Your task to perform on an android device: Open CNN.com Image 0: 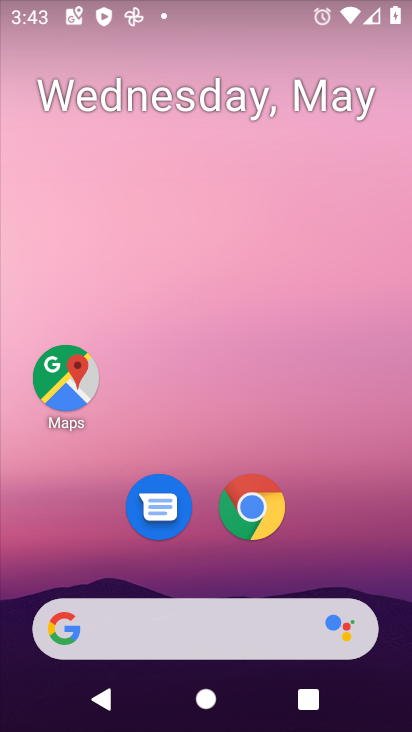
Step 0: click (254, 509)
Your task to perform on an android device: Open CNN.com Image 1: 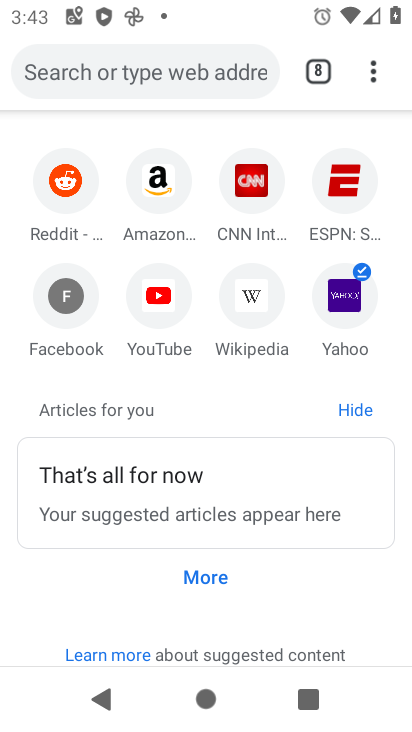
Step 1: click (315, 75)
Your task to perform on an android device: Open CNN.com Image 2: 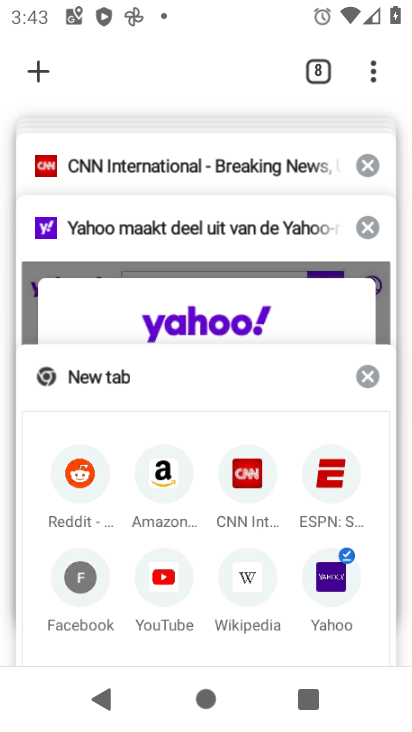
Step 2: click (158, 153)
Your task to perform on an android device: Open CNN.com Image 3: 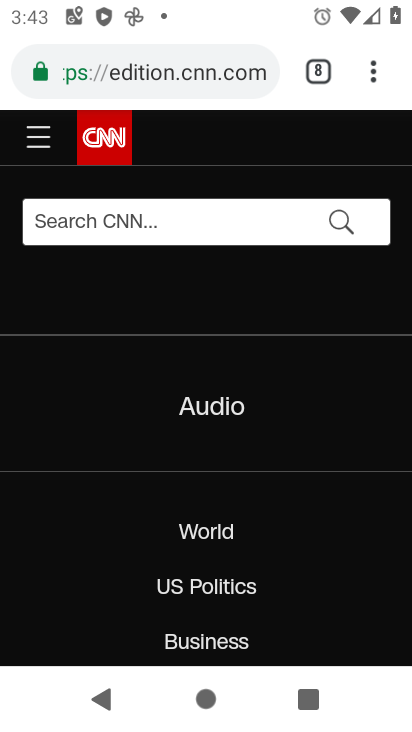
Step 3: task complete